Your task to perform on an android device: change notification settings in the gmail app Image 0: 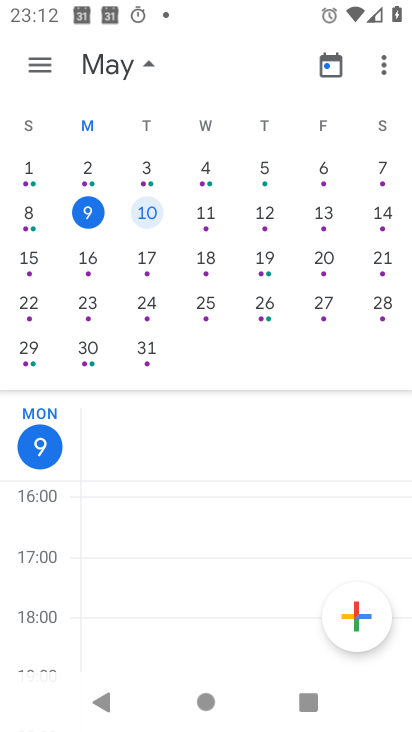
Step 0: press home button
Your task to perform on an android device: change notification settings in the gmail app Image 1: 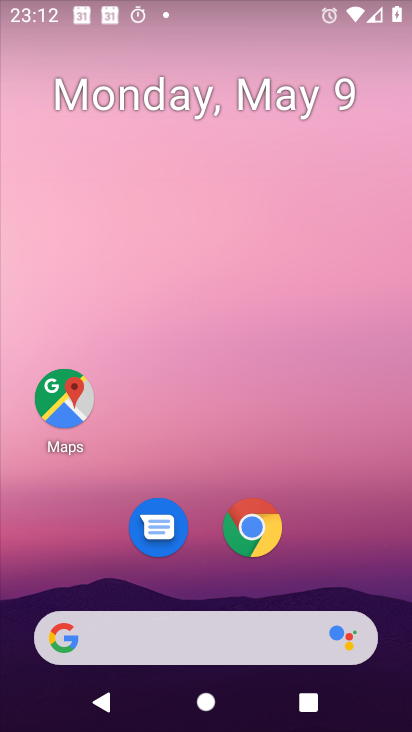
Step 1: drag from (198, 590) to (207, 63)
Your task to perform on an android device: change notification settings in the gmail app Image 2: 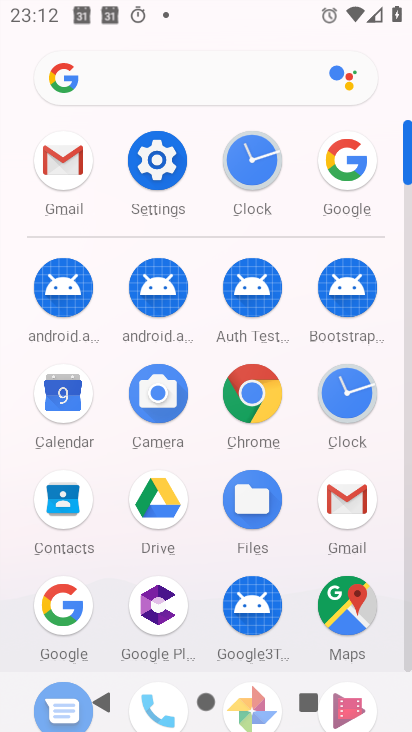
Step 2: click (63, 158)
Your task to perform on an android device: change notification settings in the gmail app Image 3: 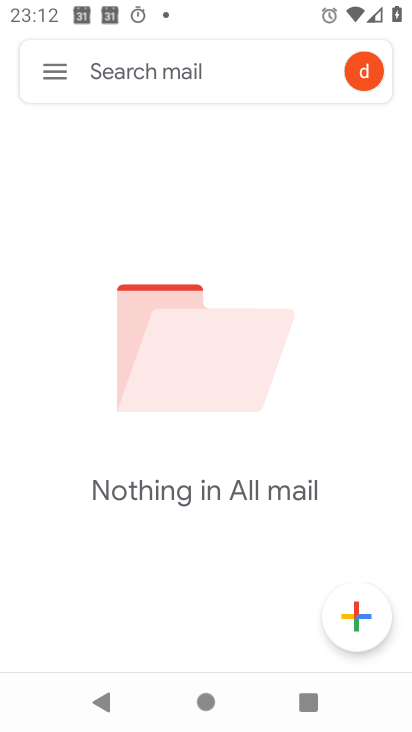
Step 3: click (45, 74)
Your task to perform on an android device: change notification settings in the gmail app Image 4: 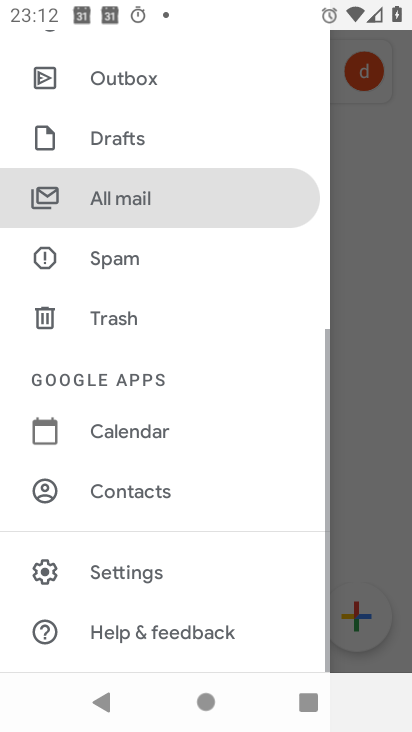
Step 4: click (161, 562)
Your task to perform on an android device: change notification settings in the gmail app Image 5: 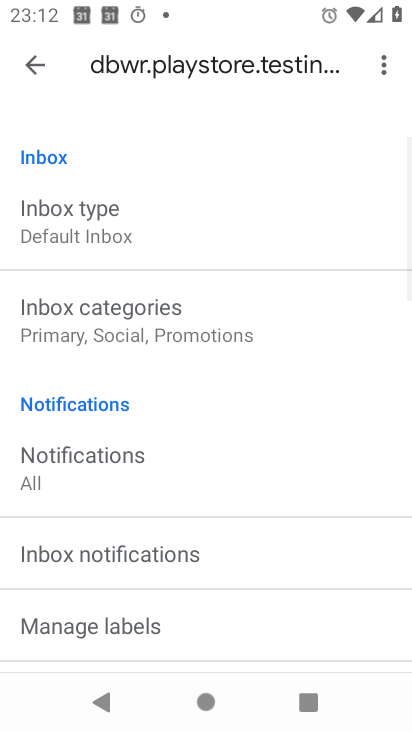
Step 5: click (149, 464)
Your task to perform on an android device: change notification settings in the gmail app Image 6: 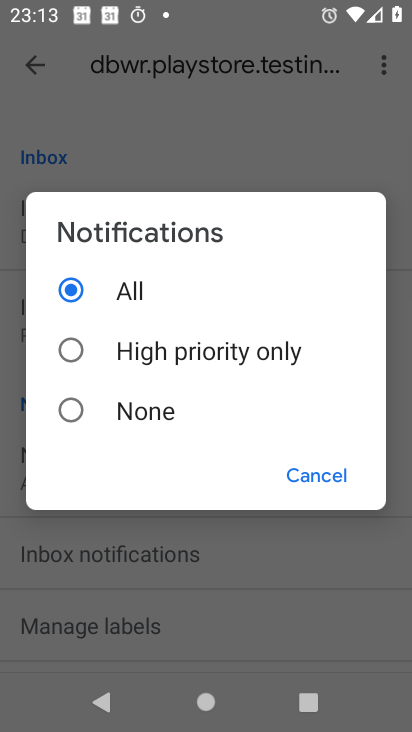
Step 6: click (82, 405)
Your task to perform on an android device: change notification settings in the gmail app Image 7: 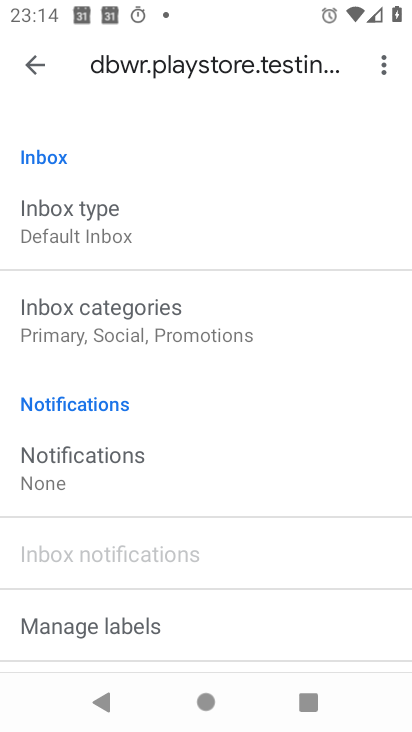
Step 7: task complete